Your task to perform on an android device: Open Amazon Image 0: 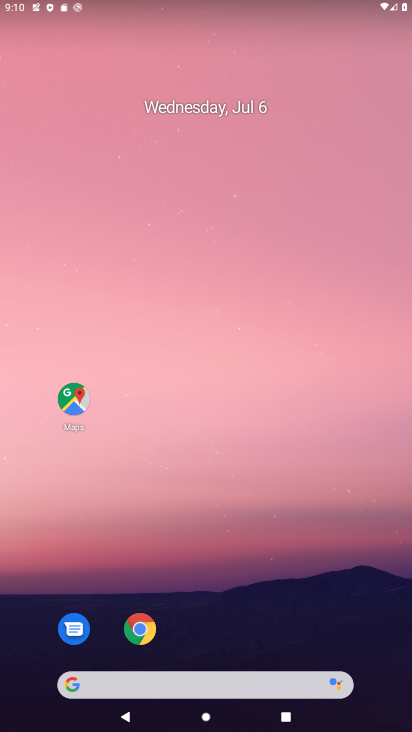
Step 0: drag from (216, 553) to (210, 165)
Your task to perform on an android device: Open Amazon Image 1: 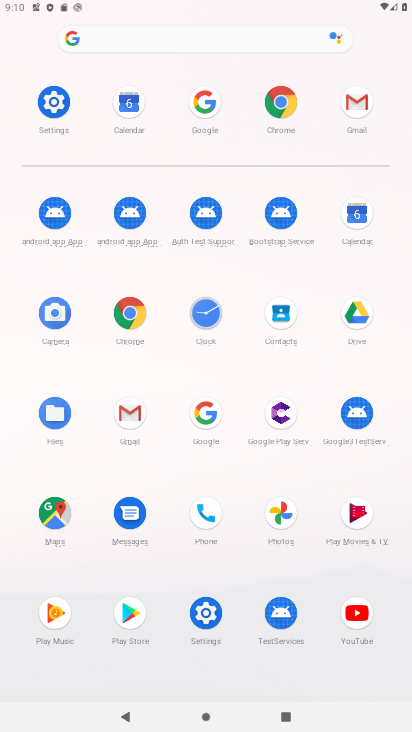
Step 1: click (135, 314)
Your task to perform on an android device: Open Amazon Image 2: 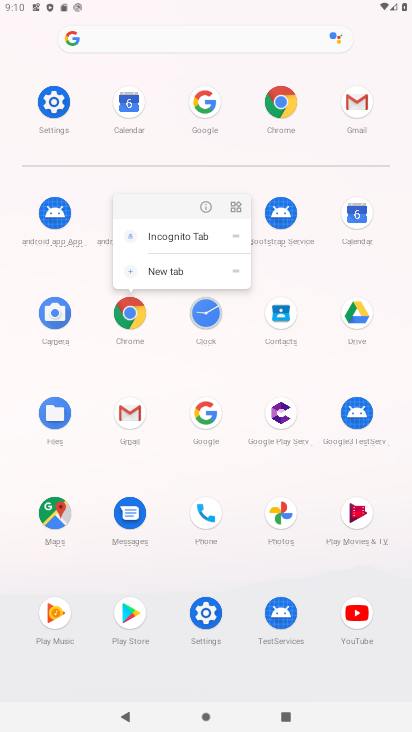
Step 2: click (135, 314)
Your task to perform on an android device: Open Amazon Image 3: 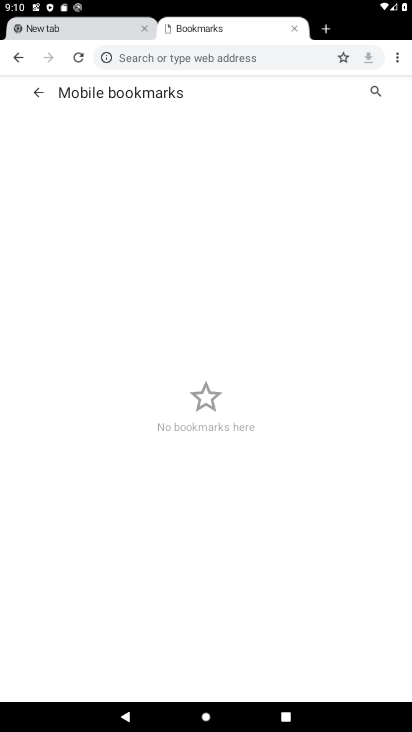
Step 3: click (75, 25)
Your task to perform on an android device: Open Amazon Image 4: 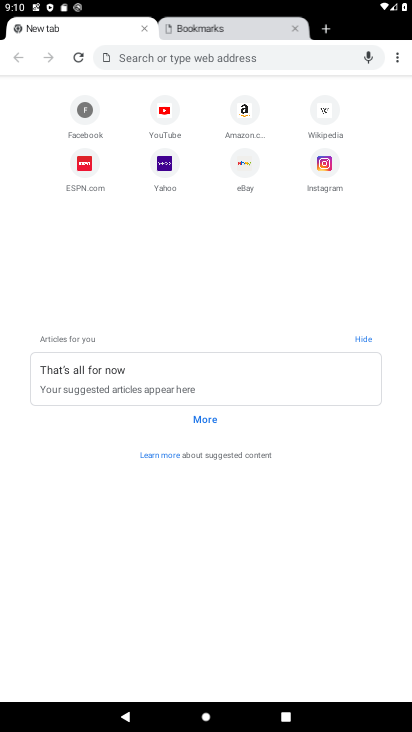
Step 4: click (243, 110)
Your task to perform on an android device: Open Amazon Image 5: 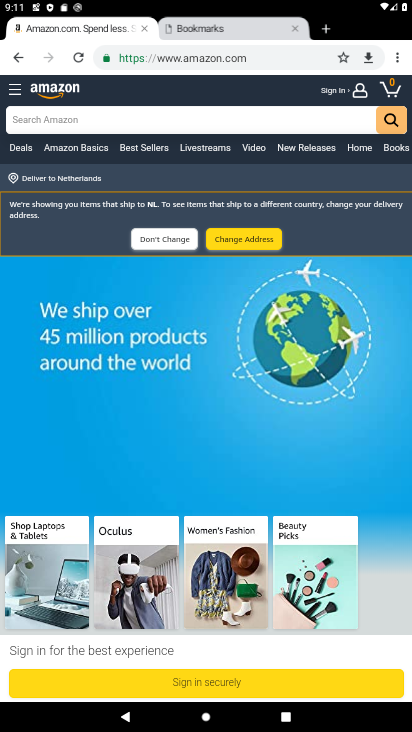
Step 5: task complete